Your task to perform on an android device: Search for Italian restaurants on Maps Image 0: 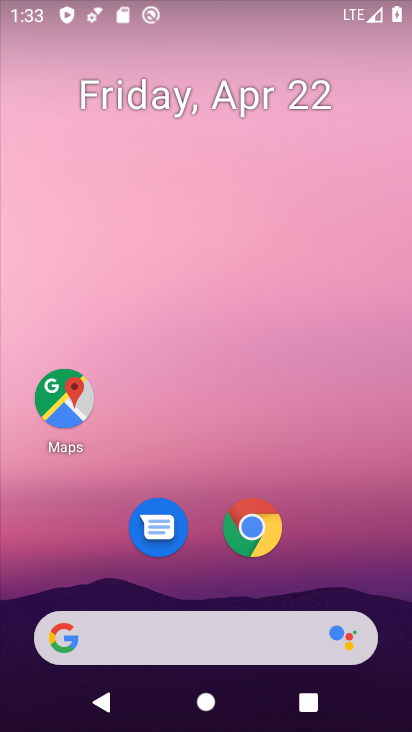
Step 0: click (73, 401)
Your task to perform on an android device: Search for Italian restaurants on Maps Image 1: 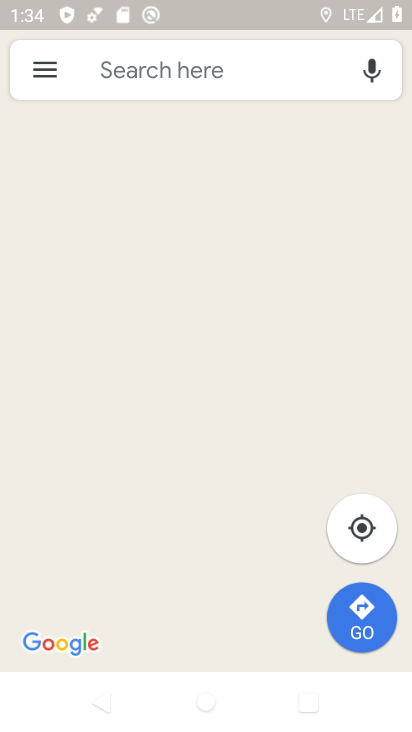
Step 1: click (204, 82)
Your task to perform on an android device: Search for Italian restaurants on Maps Image 2: 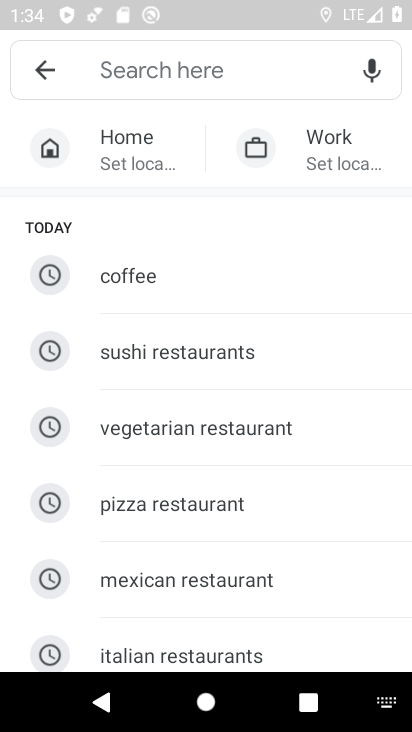
Step 2: click (180, 652)
Your task to perform on an android device: Search for Italian restaurants on Maps Image 3: 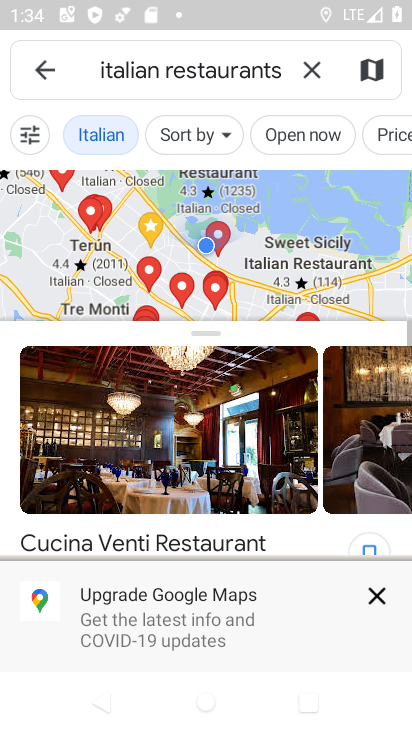
Step 3: click (382, 595)
Your task to perform on an android device: Search for Italian restaurants on Maps Image 4: 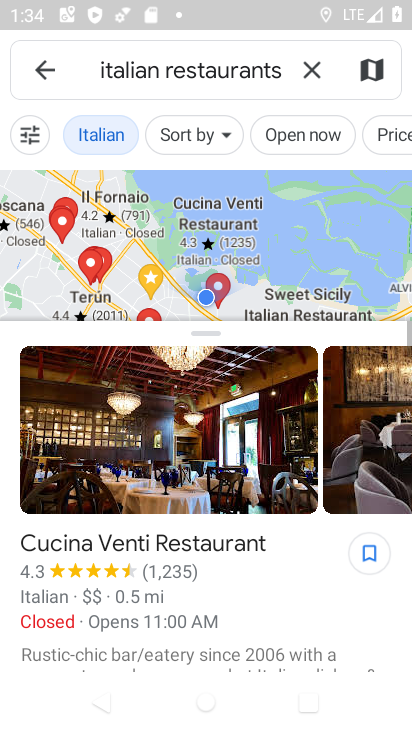
Step 4: task complete